Your task to perform on an android device: When is my next appointment? Image 0: 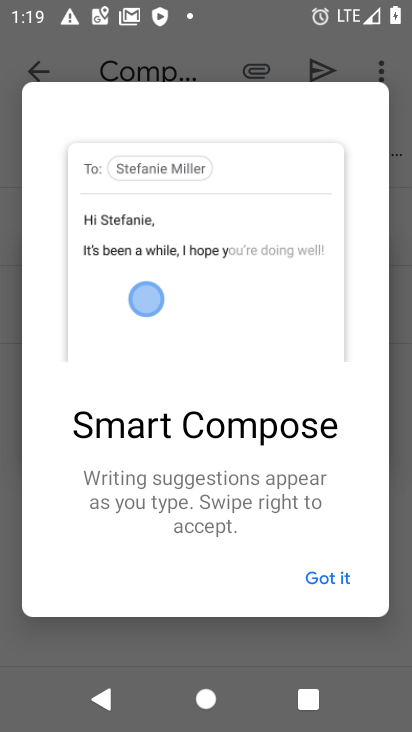
Step 0: press home button
Your task to perform on an android device: When is my next appointment? Image 1: 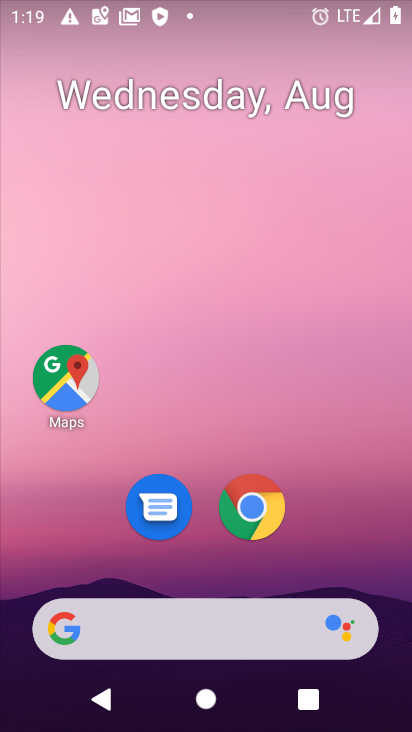
Step 1: drag from (188, 587) to (144, 17)
Your task to perform on an android device: When is my next appointment? Image 2: 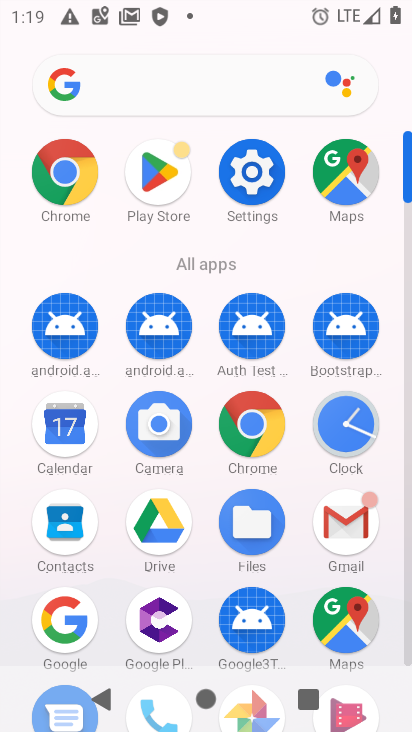
Step 2: click (68, 422)
Your task to perform on an android device: When is my next appointment? Image 3: 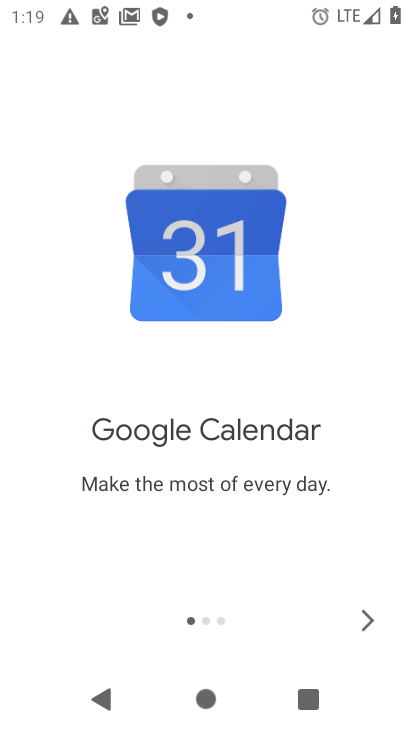
Step 3: click (365, 619)
Your task to perform on an android device: When is my next appointment? Image 4: 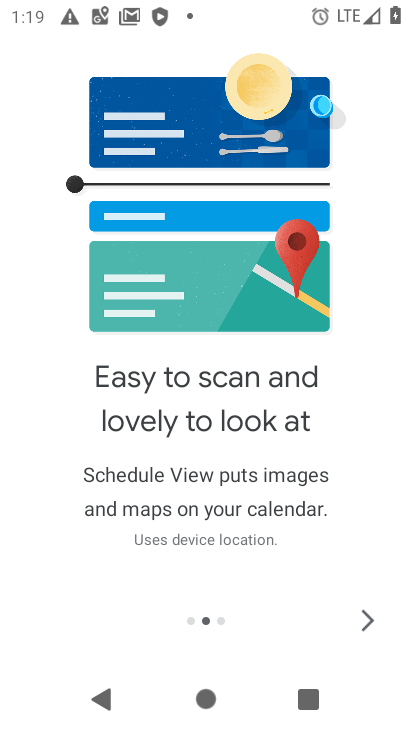
Step 4: click (326, 604)
Your task to perform on an android device: When is my next appointment? Image 5: 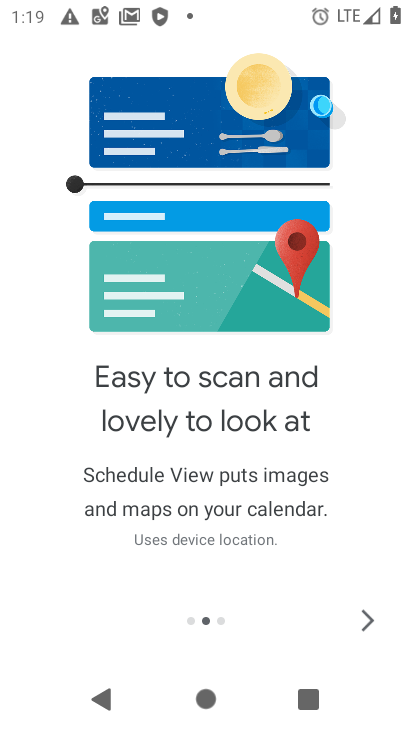
Step 5: click (352, 614)
Your task to perform on an android device: When is my next appointment? Image 6: 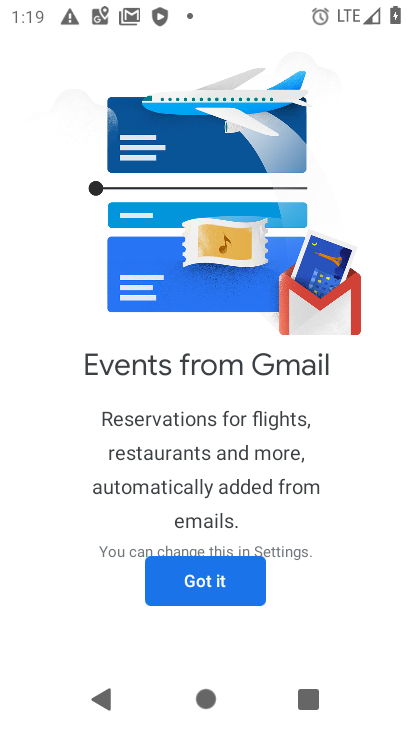
Step 6: click (351, 615)
Your task to perform on an android device: When is my next appointment? Image 7: 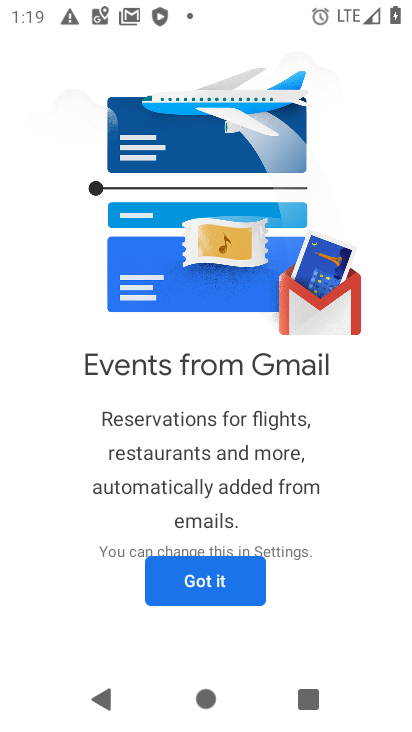
Step 7: click (232, 602)
Your task to perform on an android device: When is my next appointment? Image 8: 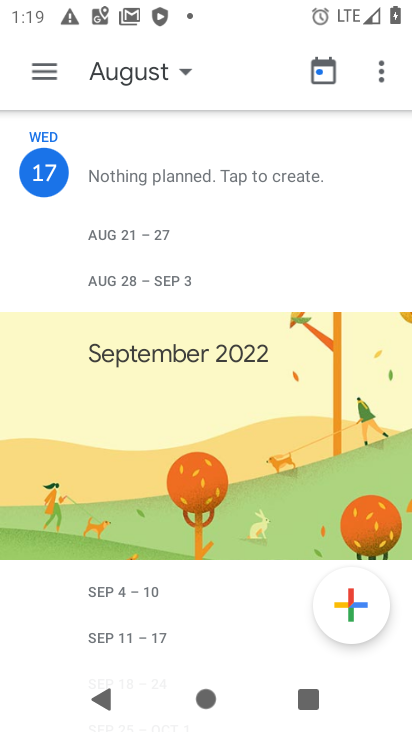
Step 8: click (319, 77)
Your task to perform on an android device: When is my next appointment? Image 9: 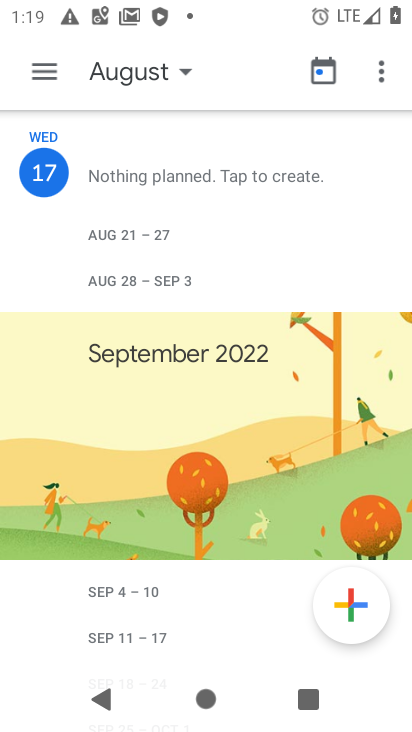
Step 9: task complete